Your task to perform on an android device: Go to Wikipedia Image 0: 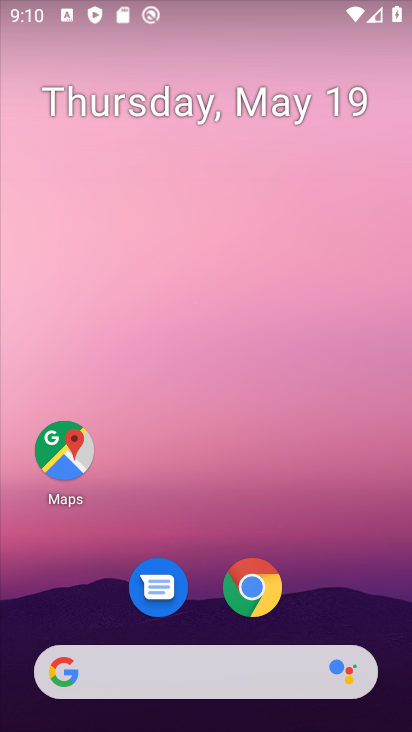
Step 0: drag from (411, 517) to (400, 370)
Your task to perform on an android device: Go to Wikipedia Image 1: 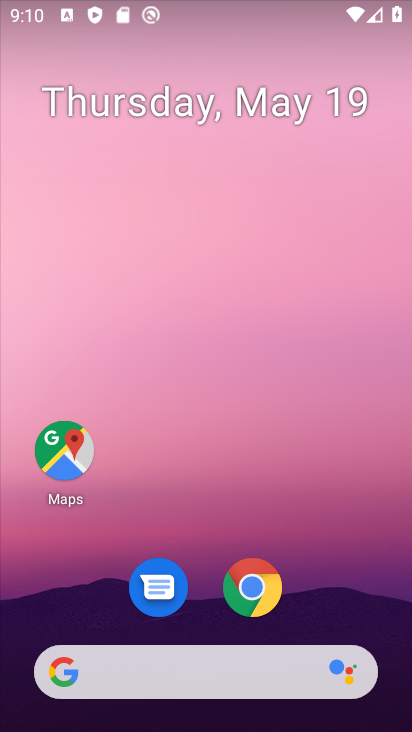
Step 1: drag from (317, 578) to (338, 144)
Your task to perform on an android device: Go to Wikipedia Image 2: 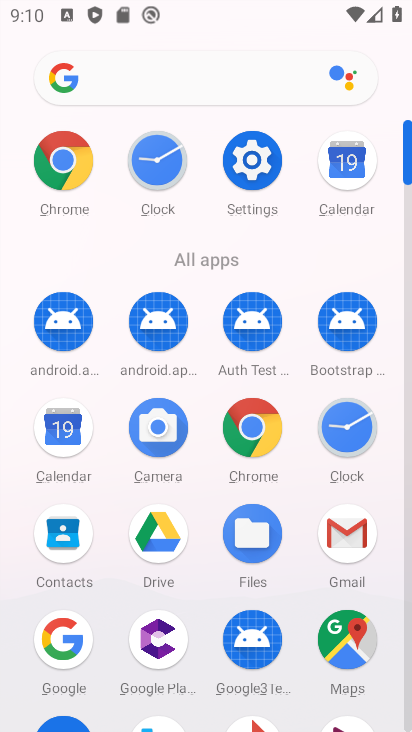
Step 2: click (238, 417)
Your task to perform on an android device: Go to Wikipedia Image 3: 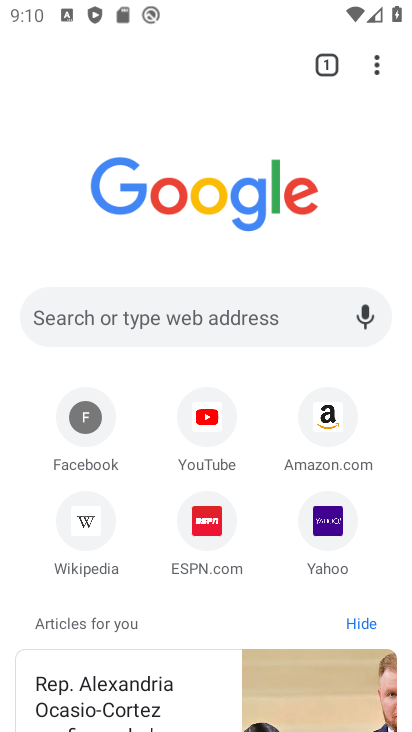
Step 3: click (99, 538)
Your task to perform on an android device: Go to Wikipedia Image 4: 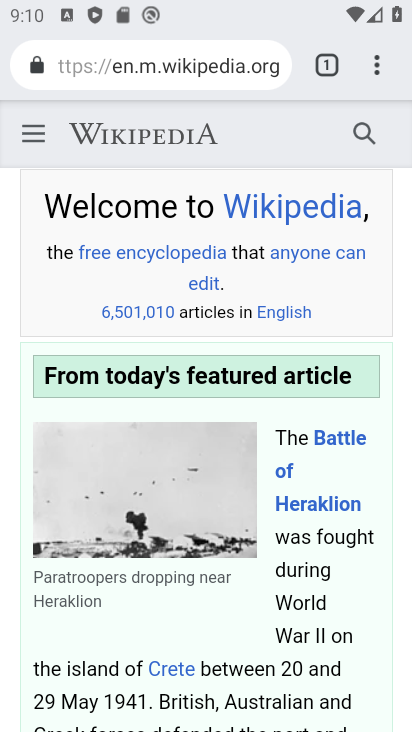
Step 4: task complete